Your task to perform on an android device: see tabs open on other devices in the chrome app Image 0: 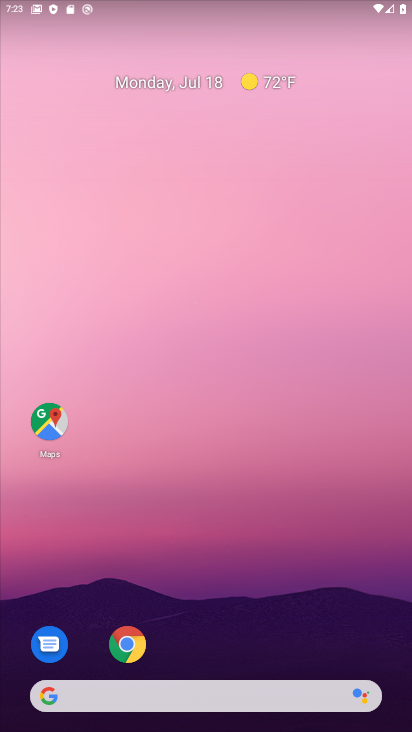
Step 0: drag from (389, 656) to (237, 20)
Your task to perform on an android device: see tabs open on other devices in the chrome app Image 1: 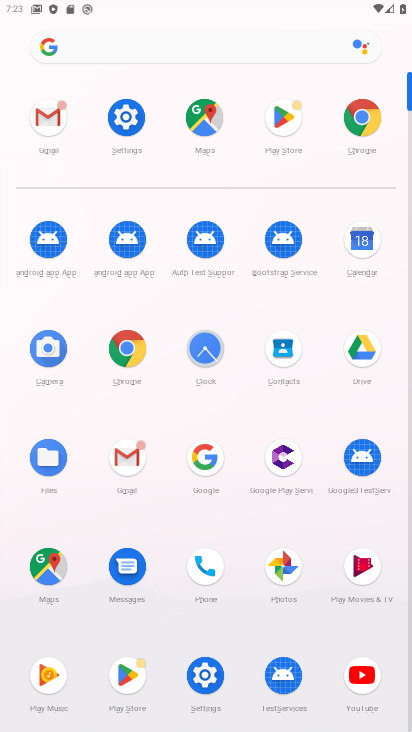
Step 1: click (118, 353)
Your task to perform on an android device: see tabs open on other devices in the chrome app Image 2: 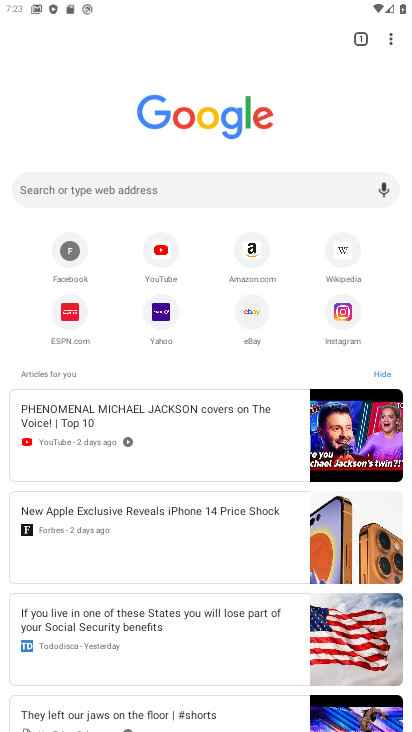
Step 2: task complete